Your task to perform on an android device: toggle translation in the chrome app Image 0: 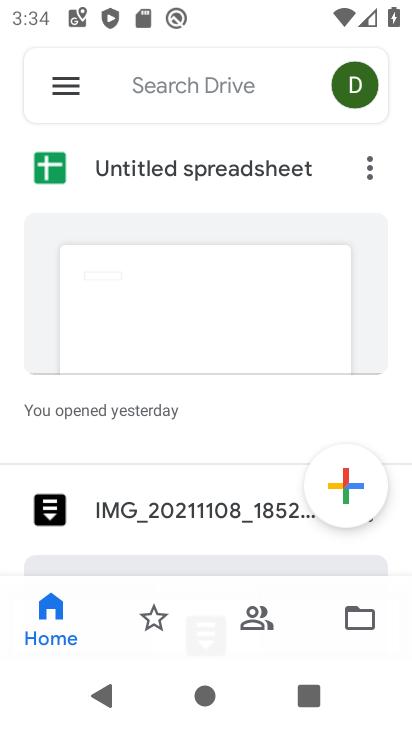
Step 0: press back button
Your task to perform on an android device: toggle translation in the chrome app Image 1: 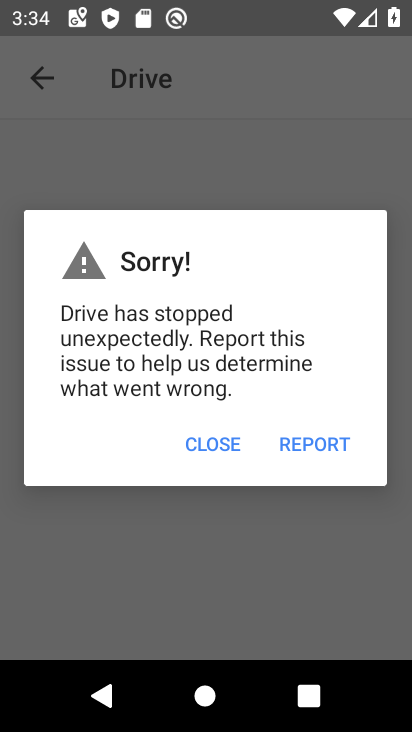
Step 1: press home button
Your task to perform on an android device: toggle translation in the chrome app Image 2: 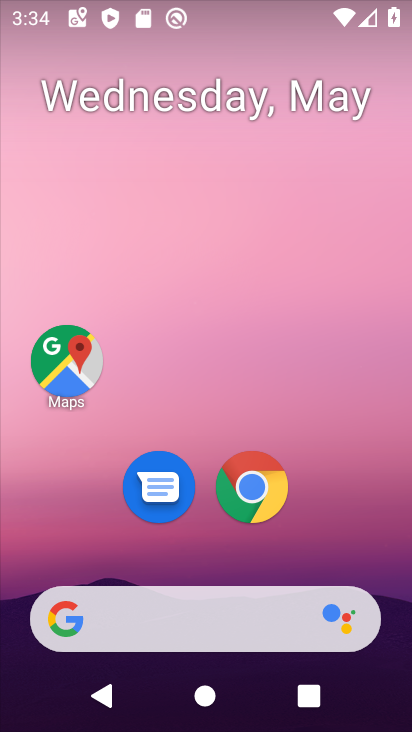
Step 2: drag from (330, 515) to (268, 67)
Your task to perform on an android device: toggle translation in the chrome app Image 3: 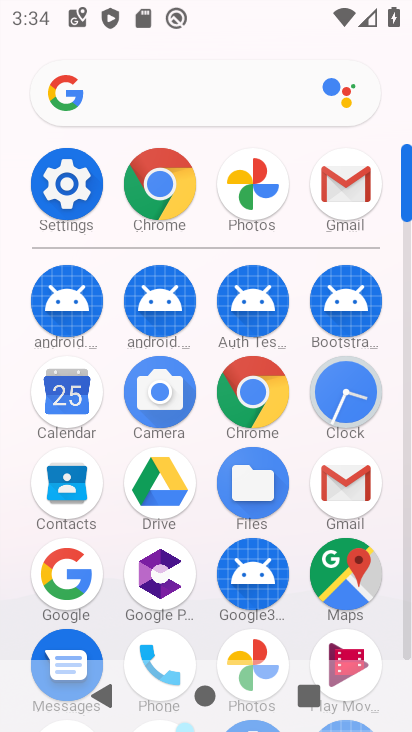
Step 3: click (159, 173)
Your task to perform on an android device: toggle translation in the chrome app Image 4: 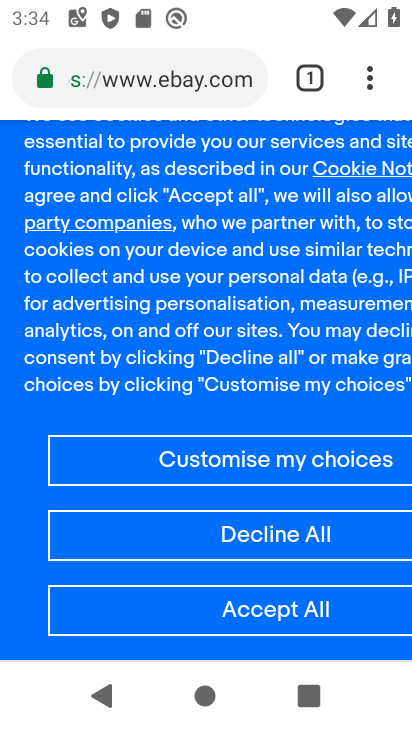
Step 4: drag from (366, 76) to (99, 552)
Your task to perform on an android device: toggle translation in the chrome app Image 5: 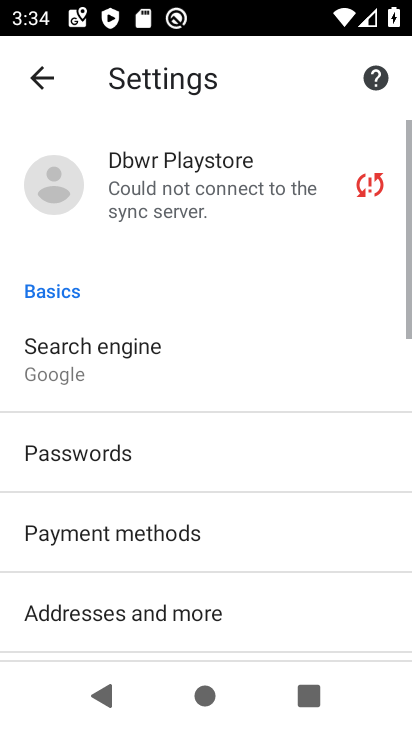
Step 5: drag from (212, 534) to (229, 181)
Your task to perform on an android device: toggle translation in the chrome app Image 6: 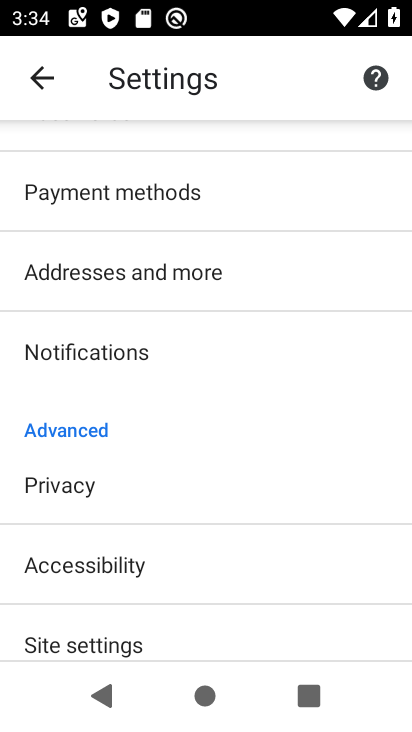
Step 6: drag from (200, 535) to (198, 215)
Your task to perform on an android device: toggle translation in the chrome app Image 7: 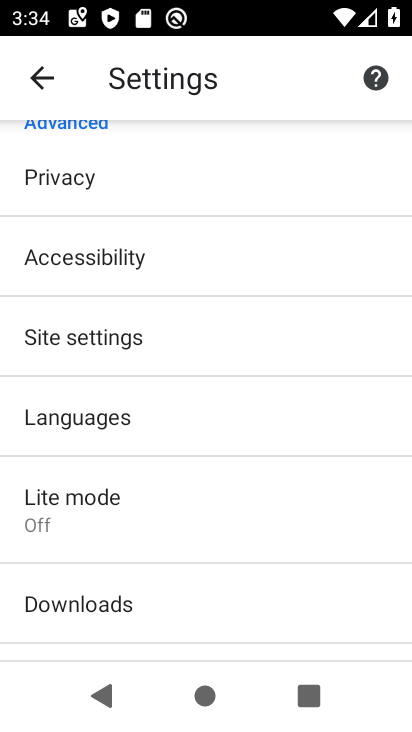
Step 7: click (104, 414)
Your task to perform on an android device: toggle translation in the chrome app Image 8: 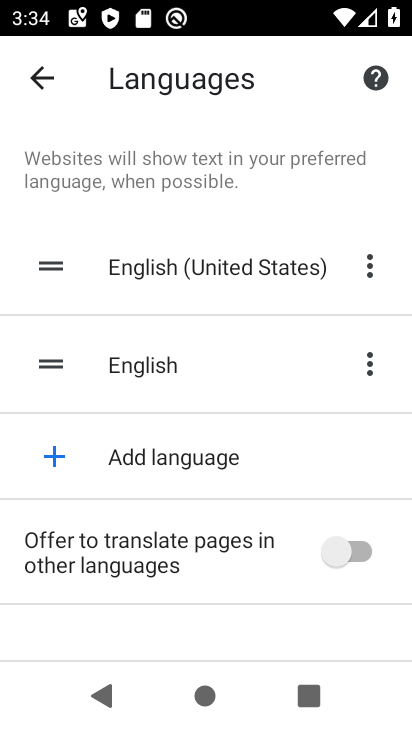
Step 8: click (356, 548)
Your task to perform on an android device: toggle translation in the chrome app Image 9: 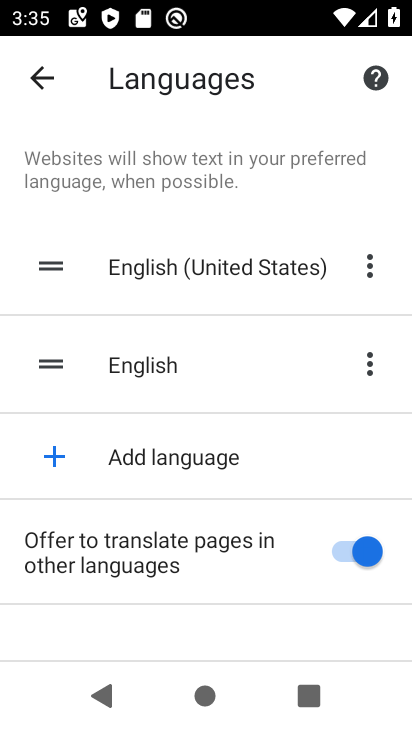
Step 9: task complete